Your task to perform on an android device: change the clock display to show seconds Image 0: 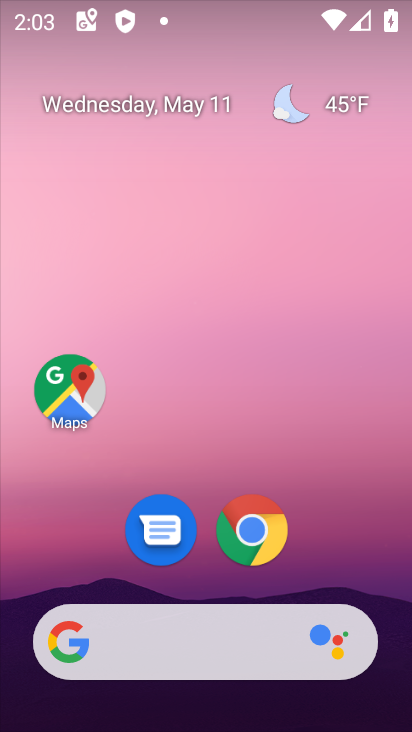
Step 0: drag from (335, 438) to (242, 15)
Your task to perform on an android device: change the clock display to show seconds Image 1: 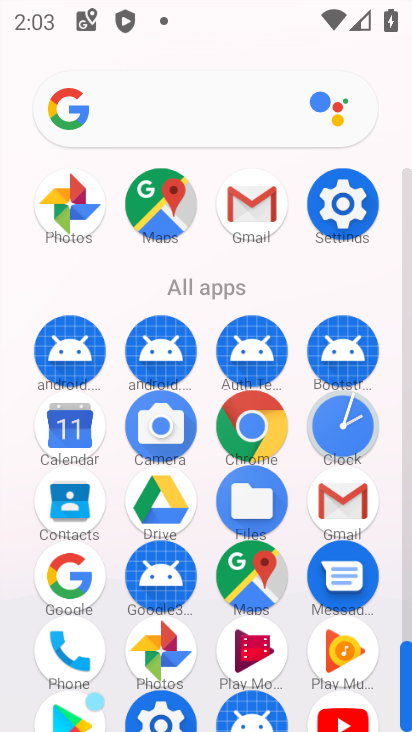
Step 1: click (350, 422)
Your task to perform on an android device: change the clock display to show seconds Image 2: 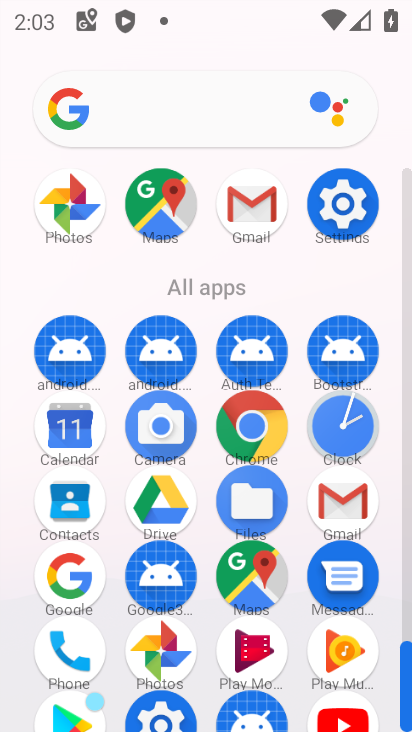
Step 2: click (350, 422)
Your task to perform on an android device: change the clock display to show seconds Image 3: 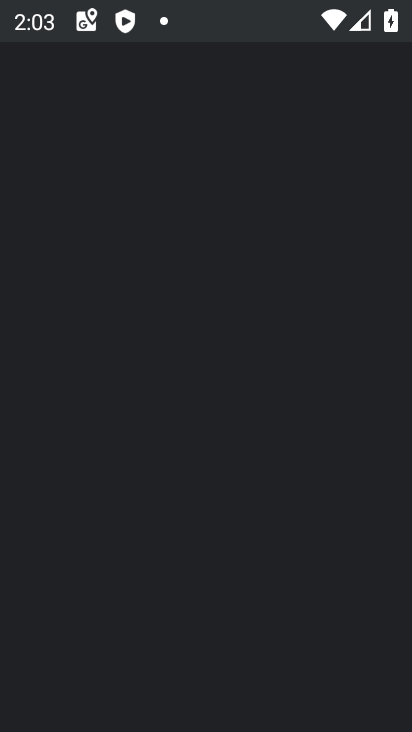
Step 3: click (352, 424)
Your task to perform on an android device: change the clock display to show seconds Image 4: 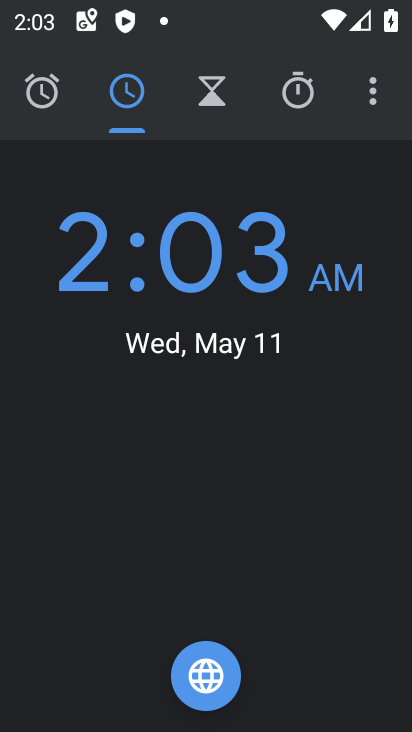
Step 4: click (380, 83)
Your task to perform on an android device: change the clock display to show seconds Image 5: 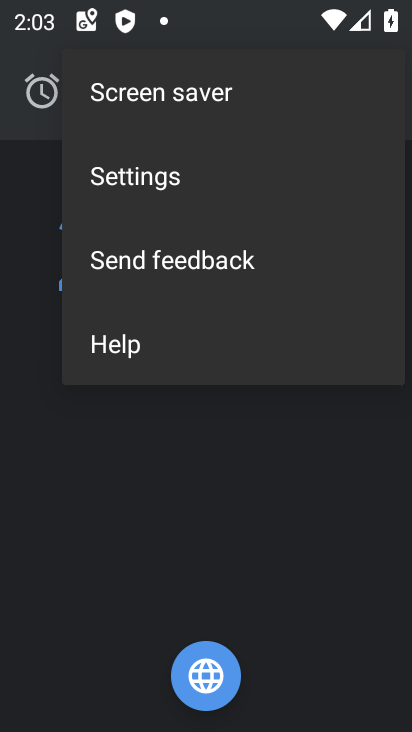
Step 5: click (133, 177)
Your task to perform on an android device: change the clock display to show seconds Image 6: 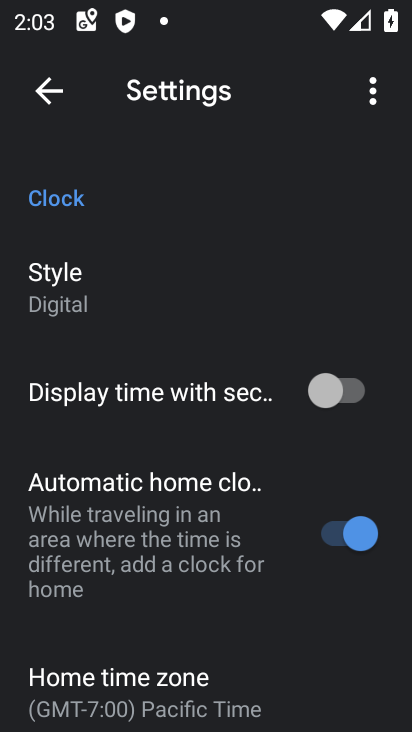
Step 6: click (324, 396)
Your task to perform on an android device: change the clock display to show seconds Image 7: 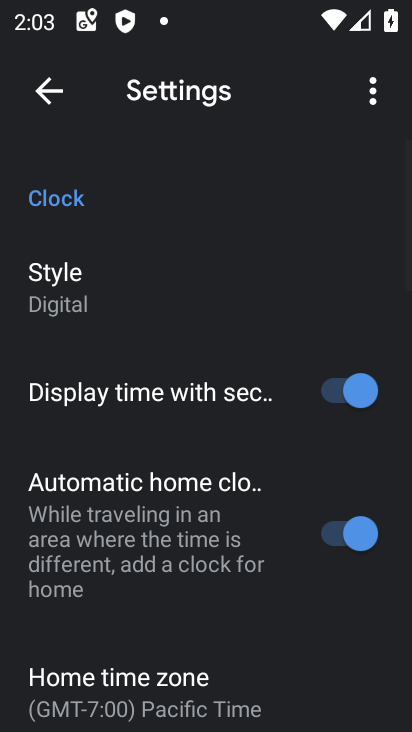
Step 7: task complete